Your task to perform on an android device: Open battery settings Image 0: 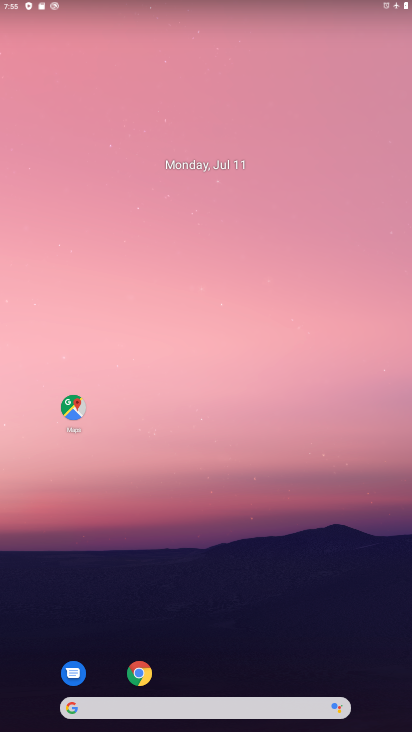
Step 0: drag from (341, 632) to (172, 193)
Your task to perform on an android device: Open battery settings Image 1: 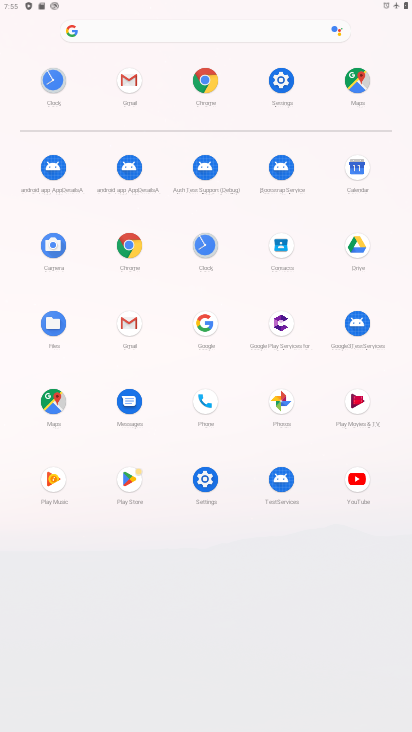
Step 1: click (282, 83)
Your task to perform on an android device: Open battery settings Image 2: 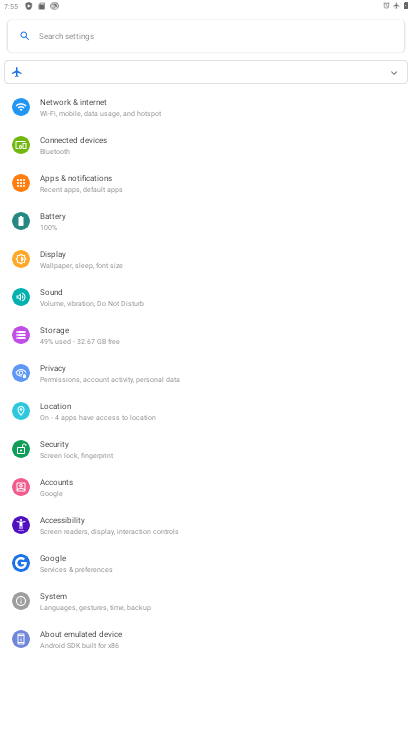
Step 2: click (48, 220)
Your task to perform on an android device: Open battery settings Image 3: 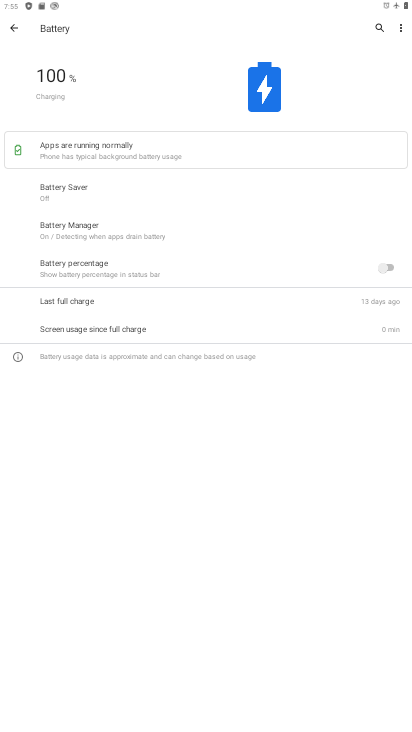
Step 3: task complete